Your task to perform on an android device: check android version Image 0: 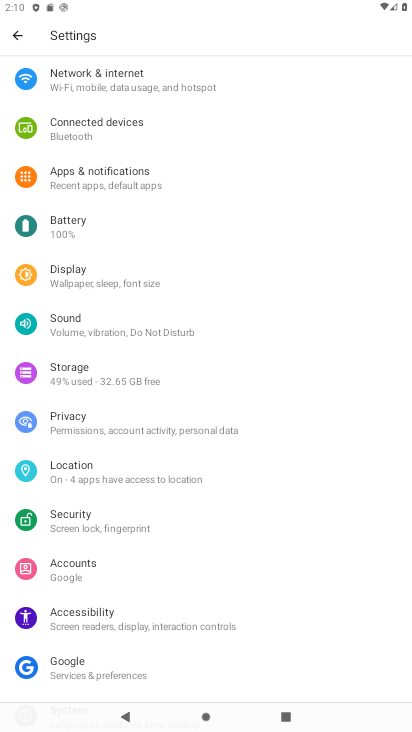
Step 0: press back button
Your task to perform on an android device: check android version Image 1: 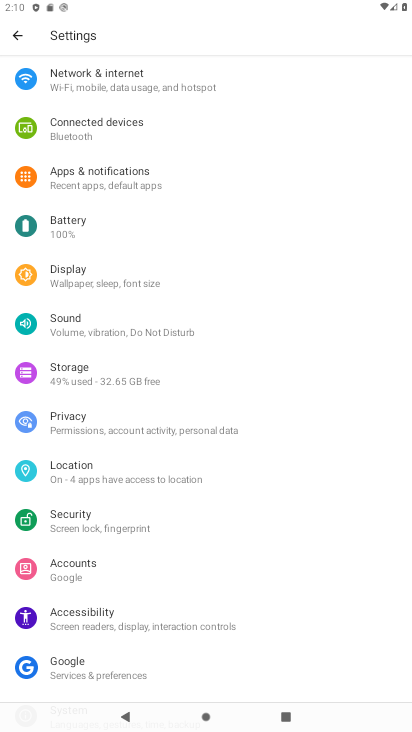
Step 1: press back button
Your task to perform on an android device: check android version Image 2: 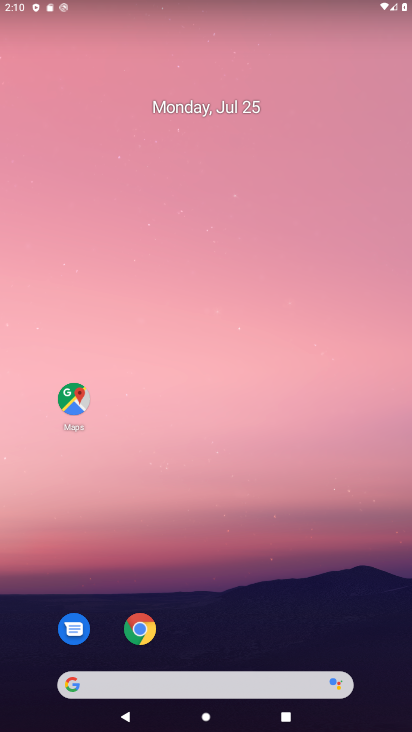
Step 2: drag from (219, 604) to (162, 18)
Your task to perform on an android device: check android version Image 3: 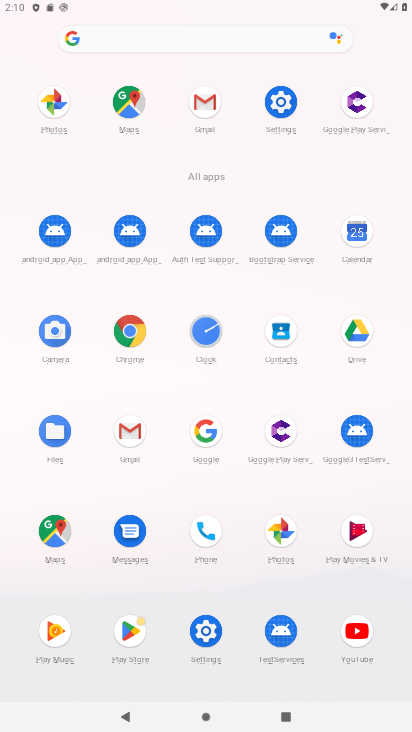
Step 3: drag from (185, 366) to (166, 94)
Your task to perform on an android device: check android version Image 4: 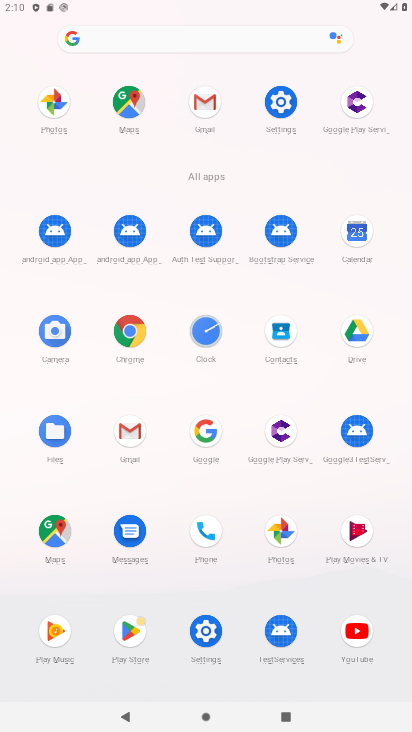
Step 4: click (279, 112)
Your task to perform on an android device: check android version Image 5: 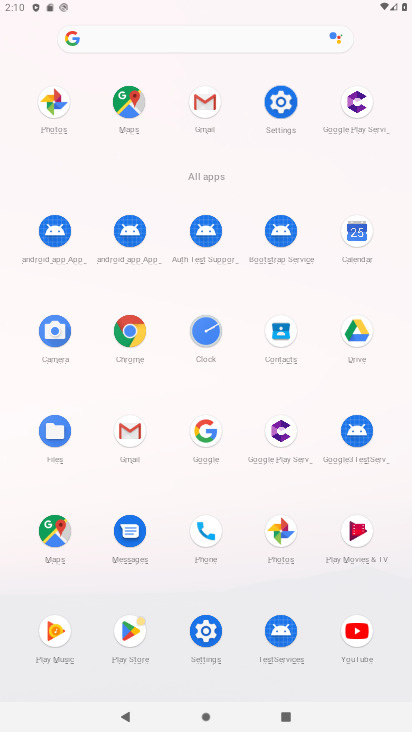
Step 5: click (273, 103)
Your task to perform on an android device: check android version Image 6: 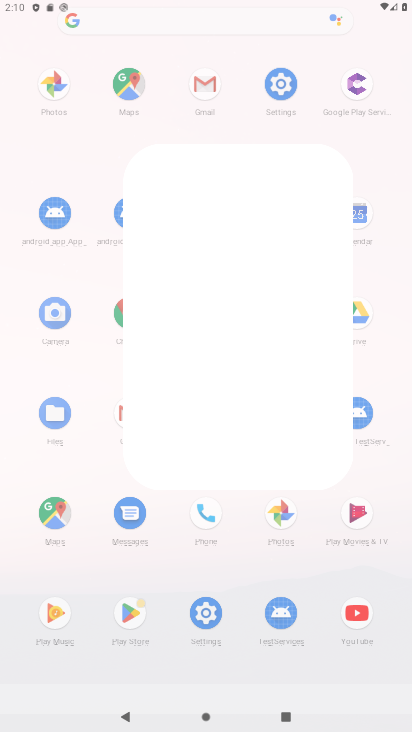
Step 6: click (273, 103)
Your task to perform on an android device: check android version Image 7: 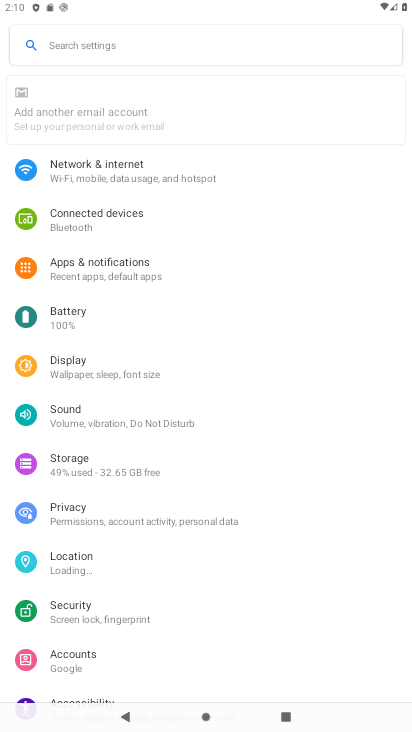
Step 7: drag from (118, 563) to (119, 151)
Your task to perform on an android device: check android version Image 8: 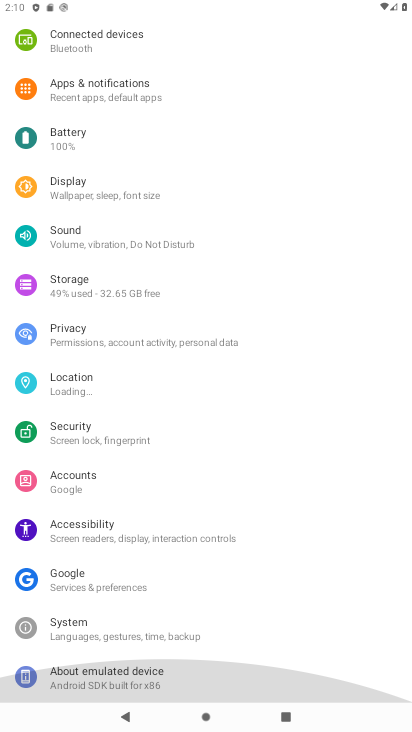
Step 8: drag from (138, 452) to (191, 110)
Your task to perform on an android device: check android version Image 9: 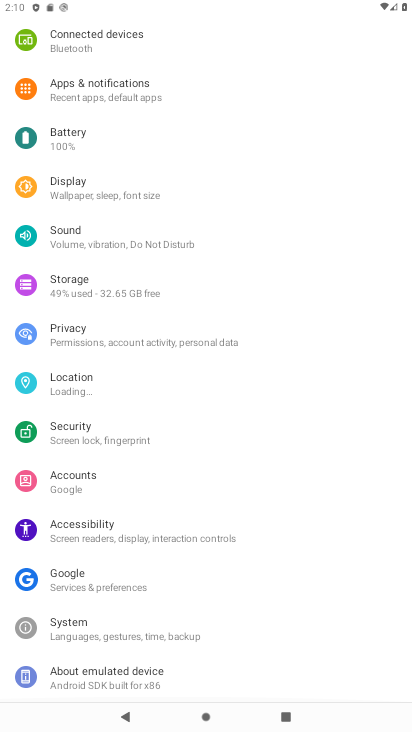
Step 9: drag from (212, 525) to (248, 196)
Your task to perform on an android device: check android version Image 10: 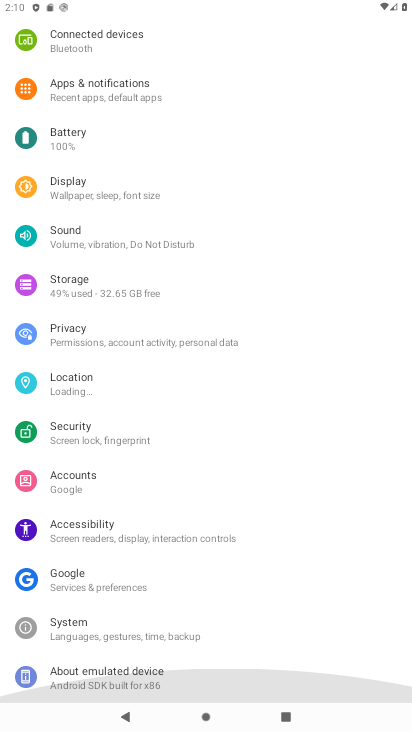
Step 10: drag from (241, 462) to (241, 260)
Your task to perform on an android device: check android version Image 11: 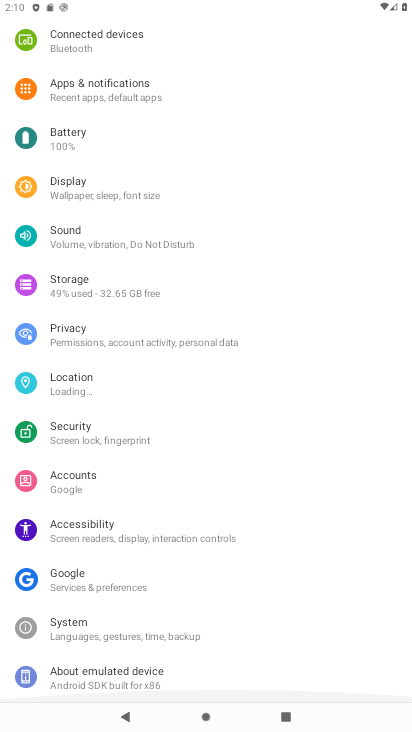
Step 11: drag from (154, 460) to (154, 211)
Your task to perform on an android device: check android version Image 12: 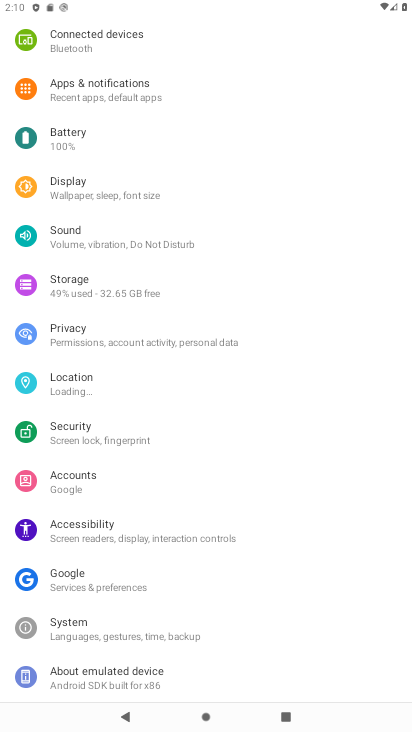
Step 12: click (79, 681)
Your task to perform on an android device: check android version Image 13: 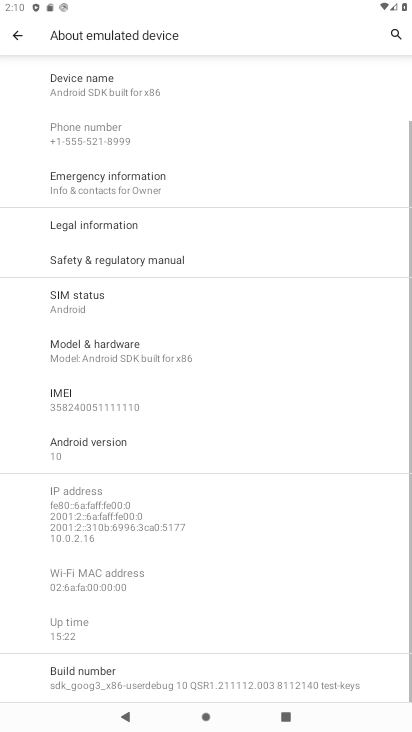
Step 13: drag from (92, 173) to (92, 511)
Your task to perform on an android device: check android version Image 14: 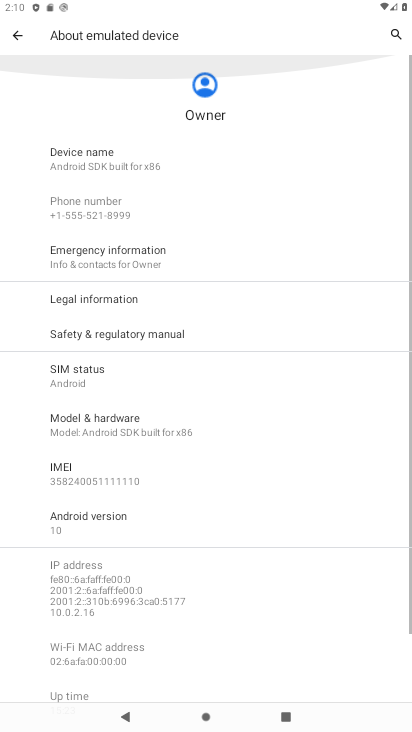
Step 14: drag from (81, 224) to (83, 348)
Your task to perform on an android device: check android version Image 15: 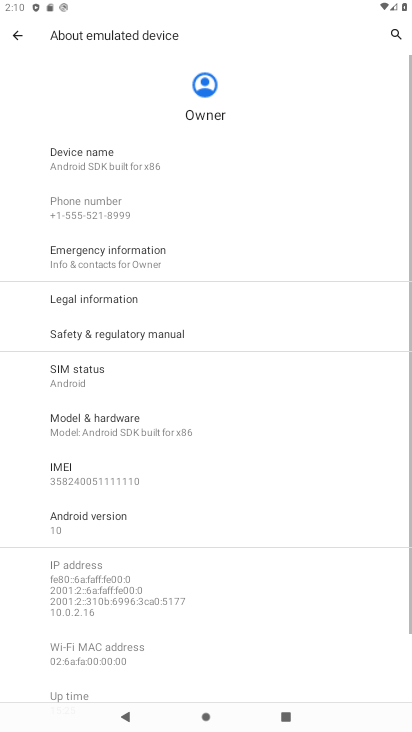
Step 15: drag from (107, 491) to (121, 280)
Your task to perform on an android device: check android version Image 16: 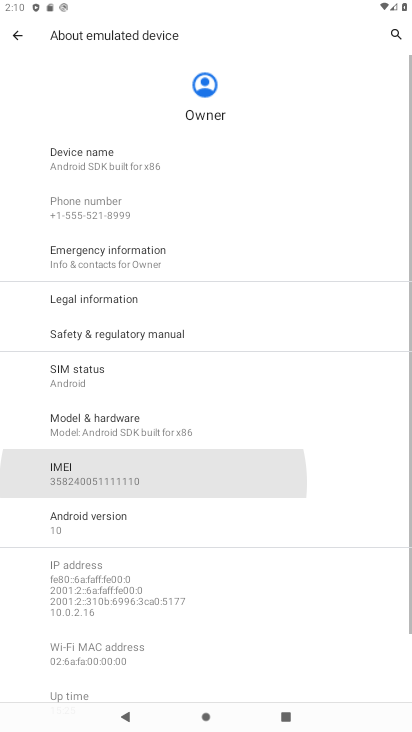
Step 16: drag from (106, 487) to (106, 262)
Your task to perform on an android device: check android version Image 17: 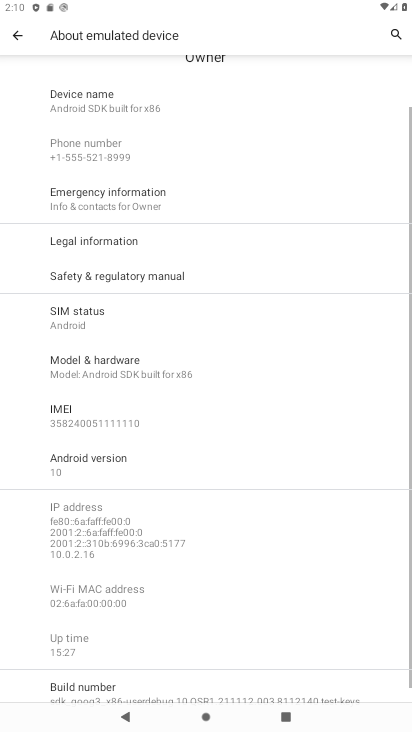
Step 17: click (82, 455)
Your task to perform on an android device: check android version Image 18: 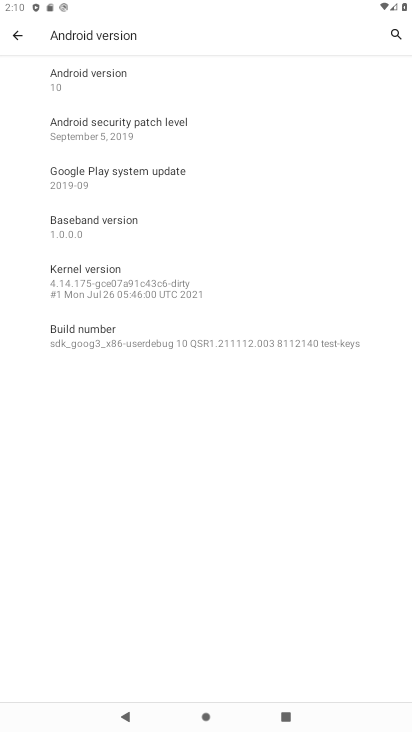
Step 18: click (82, 455)
Your task to perform on an android device: check android version Image 19: 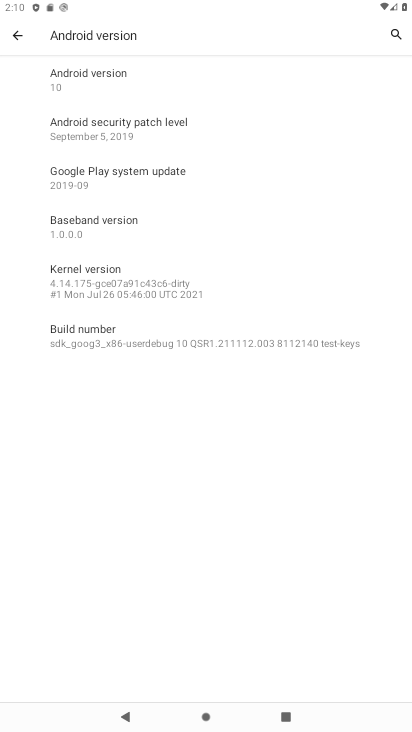
Step 19: task complete